Your task to perform on an android device: turn on sleep mode Image 0: 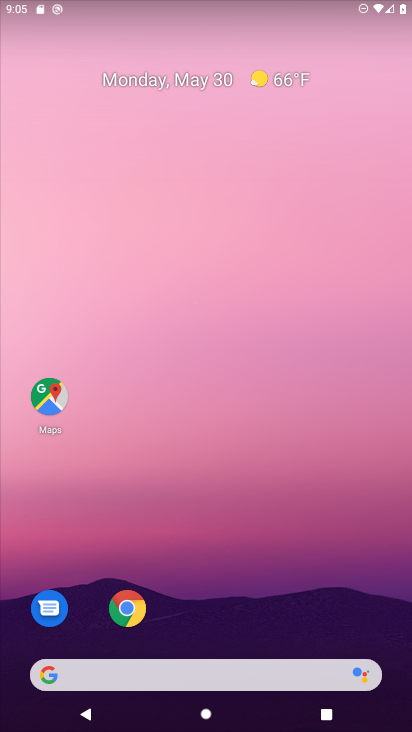
Step 0: drag from (237, 681) to (222, 193)
Your task to perform on an android device: turn on sleep mode Image 1: 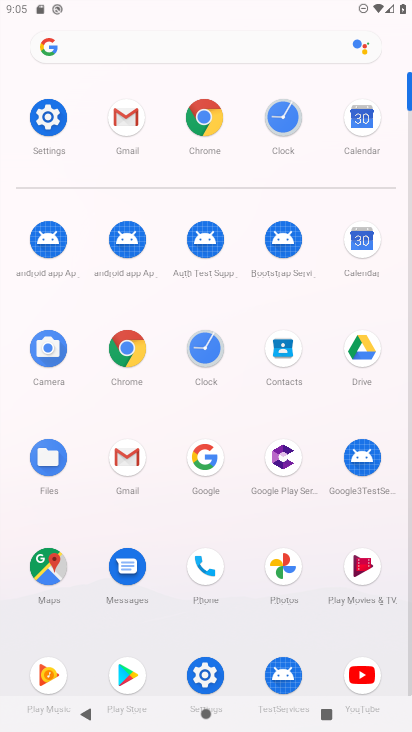
Step 1: click (38, 120)
Your task to perform on an android device: turn on sleep mode Image 2: 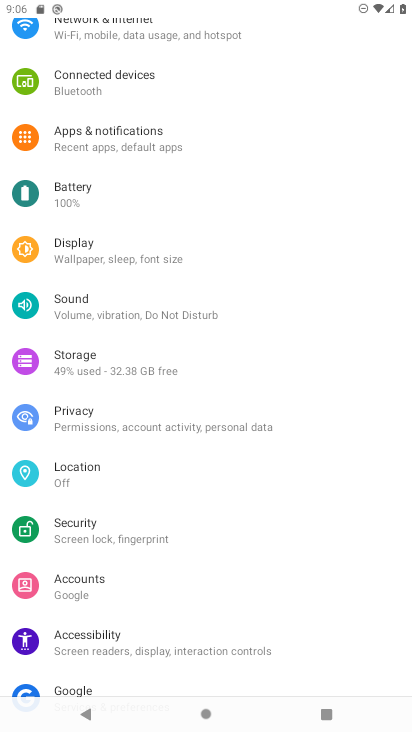
Step 2: task complete